Your task to perform on an android device: show emergency info Image 0: 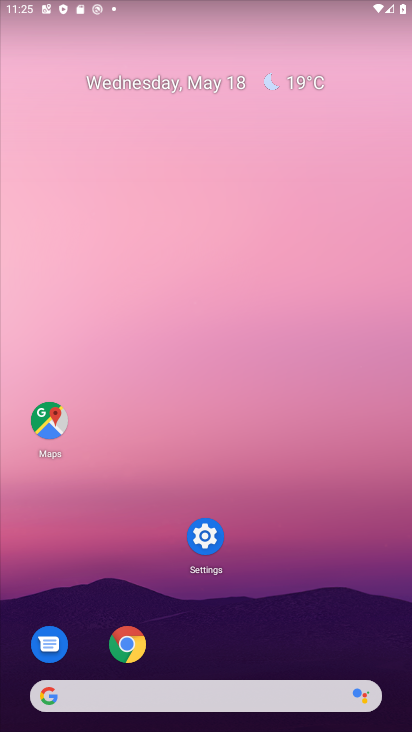
Step 0: drag from (301, 593) to (279, 126)
Your task to perform on an android device: show emergency info Image 1: 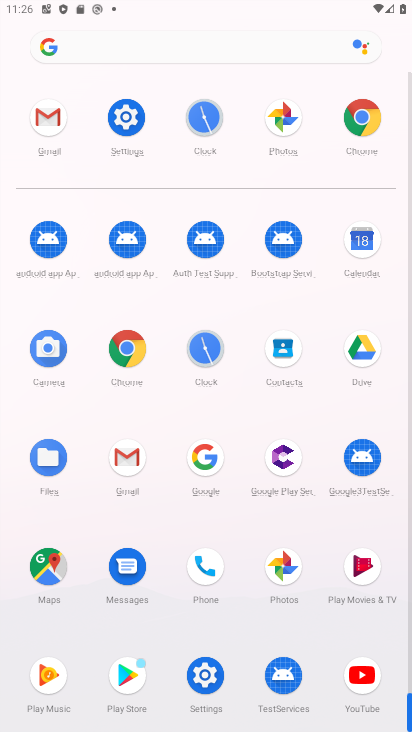
Step 1: click (126, 102)
Your task to perform on an android device: show emergency info Image 2: 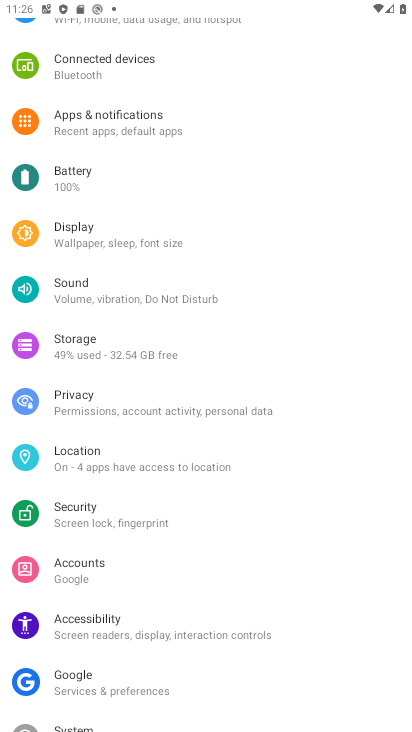
Step 2: drag from (183, 622) to (232, 159)
Your task to perform on an android device: show emergency info Image 3: 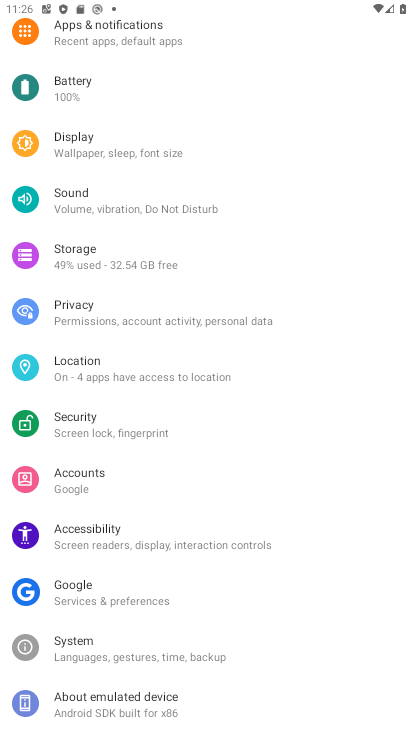
Step 3: drag from (185, 621) to (254, 282)
Your task to perform on an android device: show emergency info Image 4: 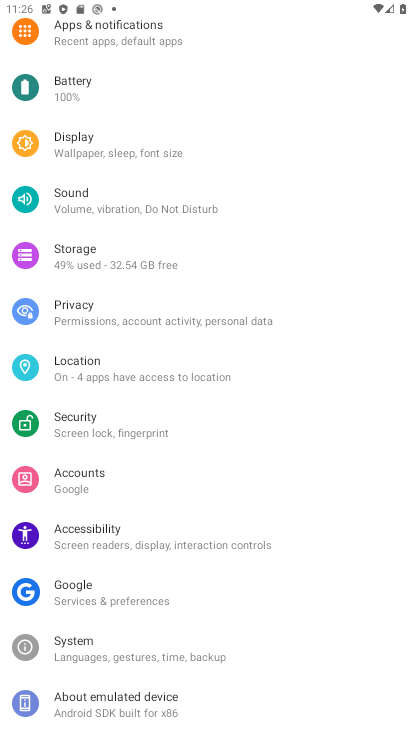
Step 4: click (139, 716)
Your task to perform on an android device: show emergency info Image 5: 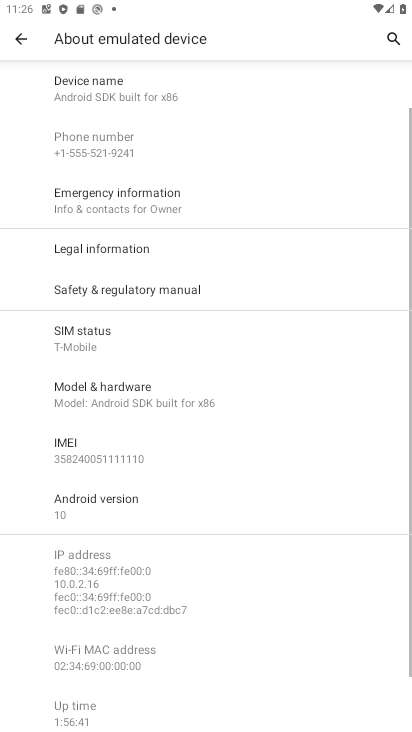
Step 5: click (171, 205)
Your task to perform on an android device: show emergency info Image 6: 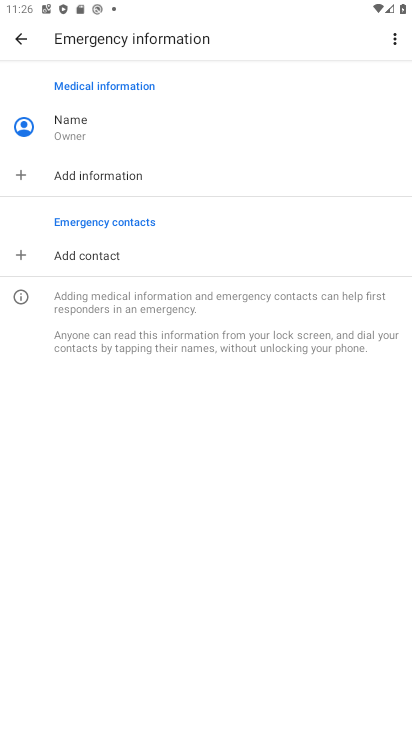
Step 6: task complete